Your task to perform on an android device: clear all cookies in the chrome app Image 0: 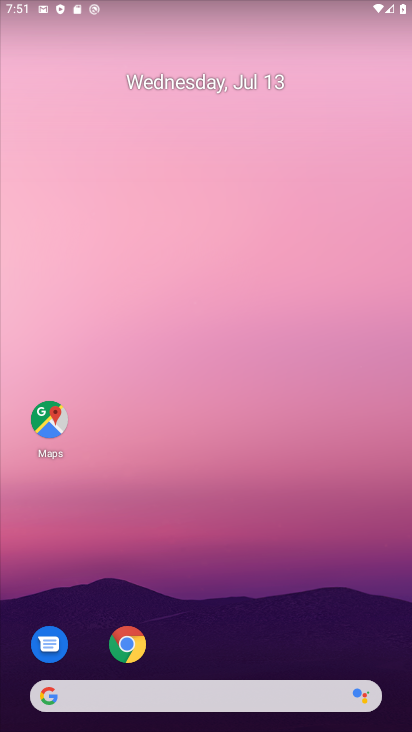
Step 0: drag from (55, 564) to (353, 47)
Your task to perform on an android device: clear all cookies in the chrome app Image 1: 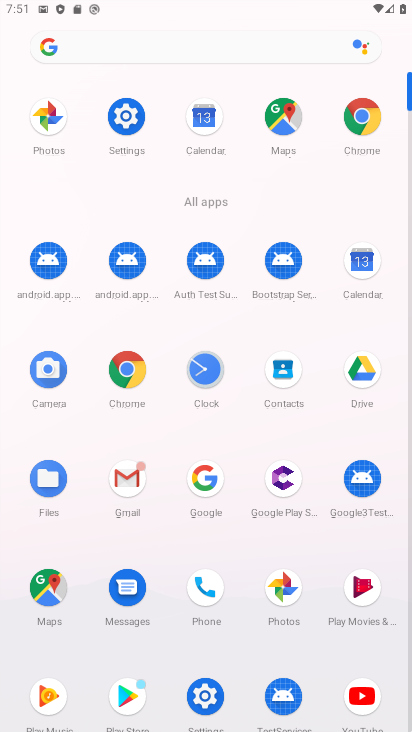
Step 1: click (361, 125)
Your task to perform on an android device: clear all cookies in the chrome app Image 2: 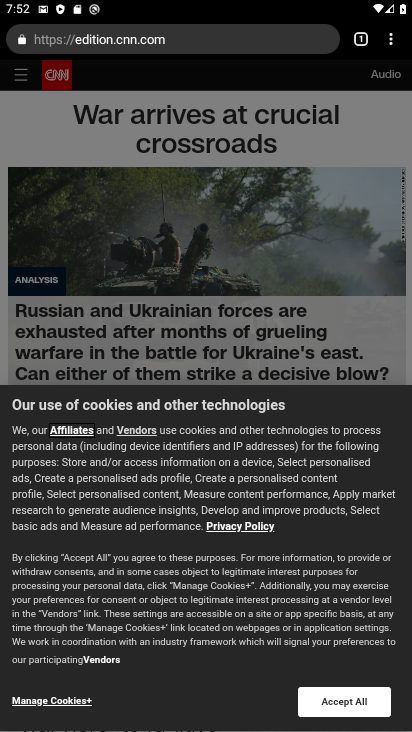
Step 2: click (387, 46)
Your task to perform on an android device: clear all cookies in the chrome app Image 3: 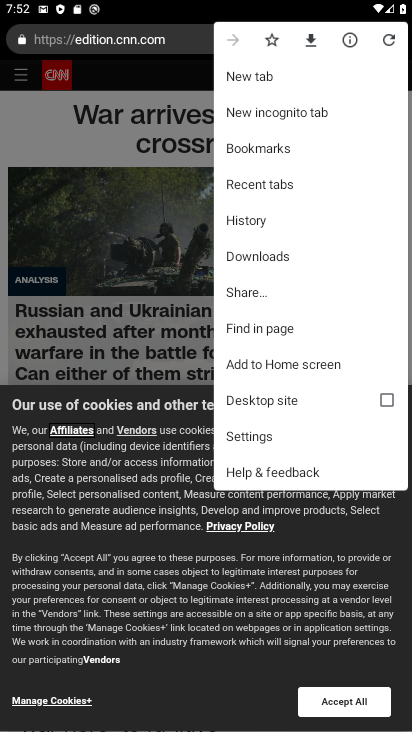
Step 3: click (277, 438)
Your task to perform on an android device: clear all cookies in the chrome app Image 4: 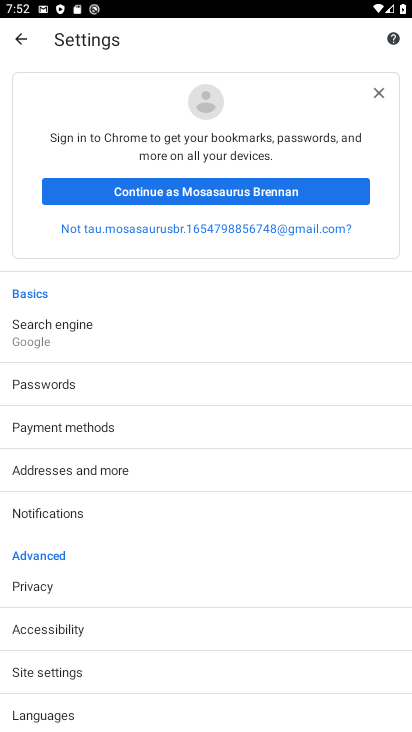
Step 4: click (68, 670)
Your task to perform on an android device: clear all cookies in the chrome app Image 5: 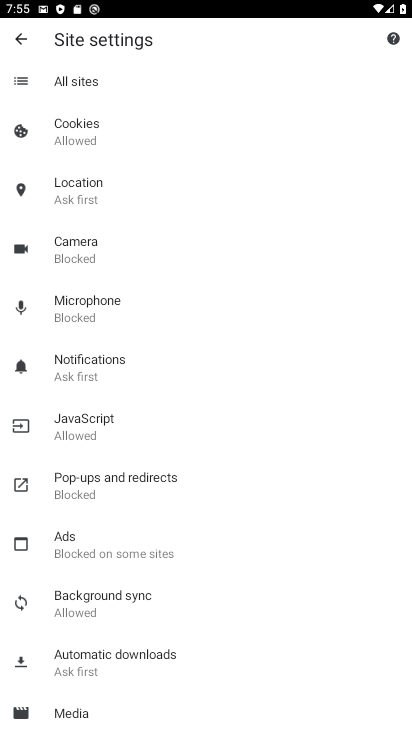
Step 5: task complete